Your task to perform on an android device: Go to Google Image 0: 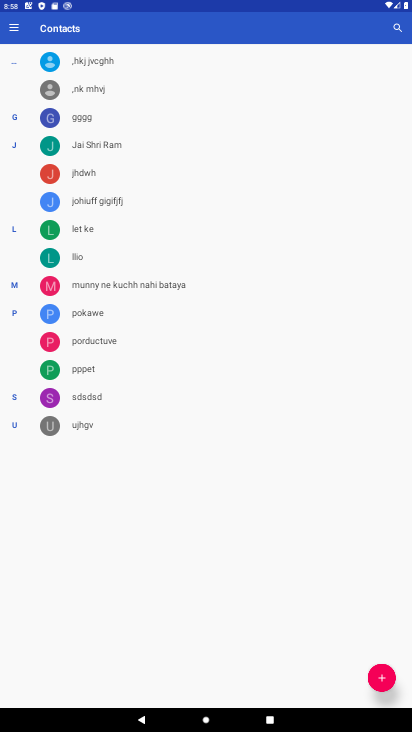
Step 0: press home button
Your task to perform on an android device: Go to Google Image 1: 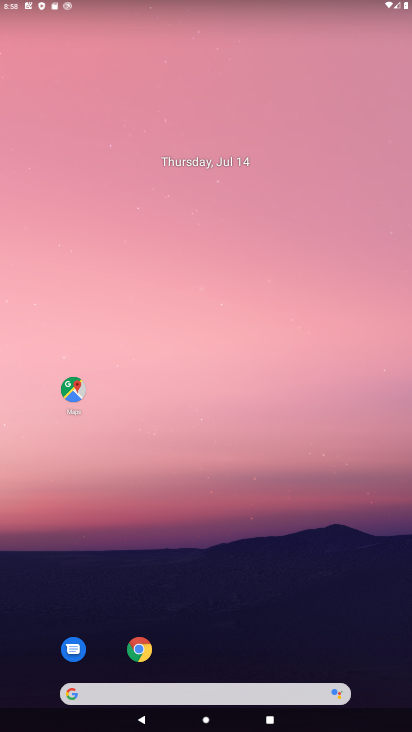
Step 1: drag from (321, 564) to (241, 0)
Your task to perform on an android device: Go to Google Image 2: 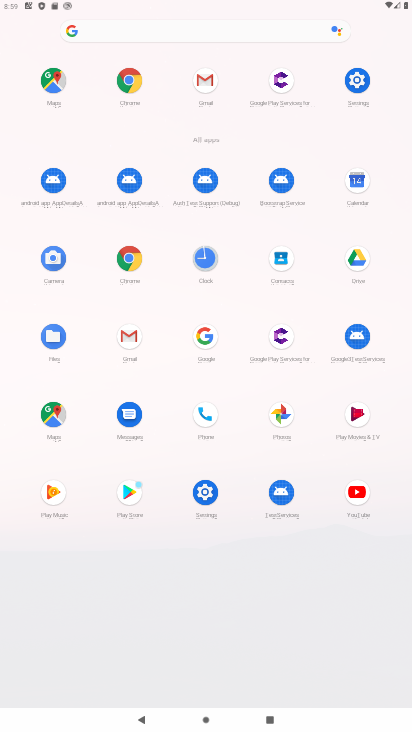
Step 2: click (203, 339)
Your task to perform on an android device: Go to Google Image 3: 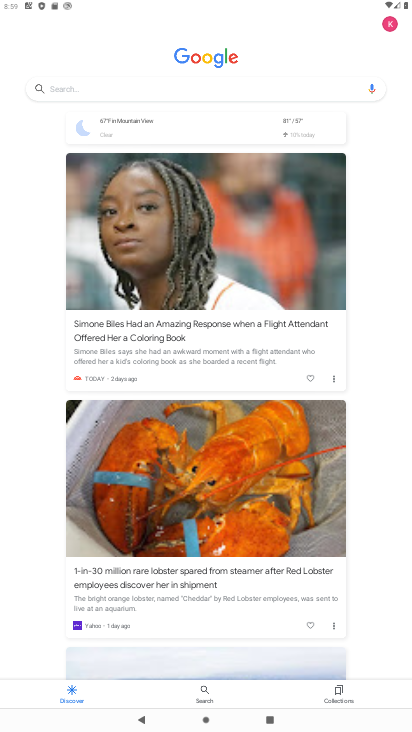
Step 3: task complete